Your task to perform on an android device: Go to Amazon Image 0: 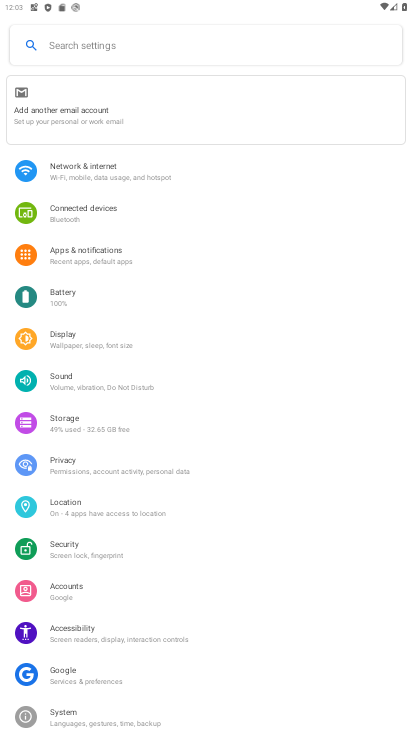
Step 0: press back button
Your task to perform on an android device: Go to Amazon Image 1: 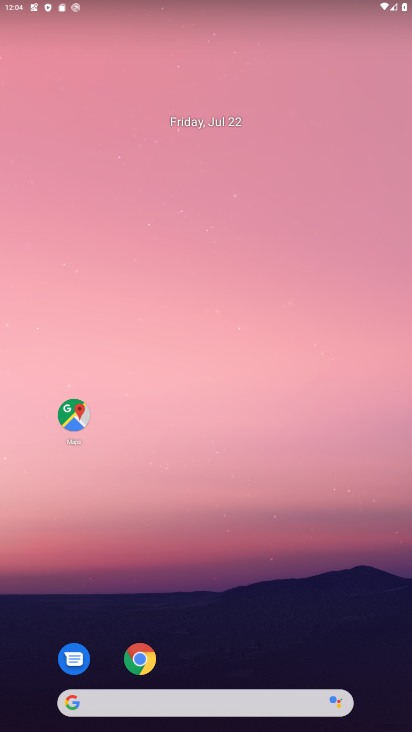
Step 1: click (145, 660)
Your task to perform on an android device: Go to Amazon Image 2: 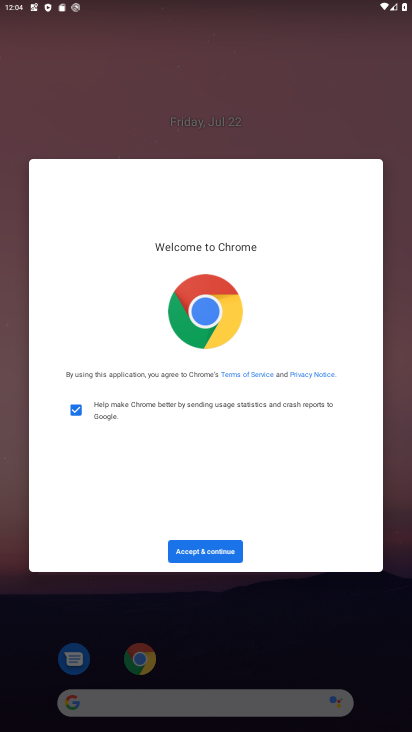
Step 2: click (205, 555)
Your task to perform on an android device: Go to Amazon Image 3: 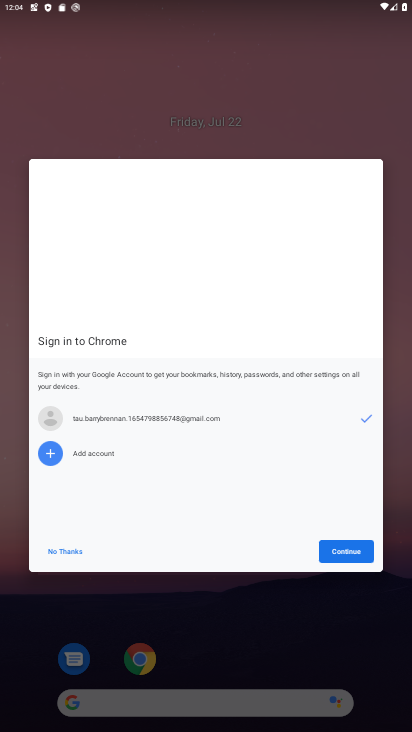
Step 3: click (339, 560)
Your task to perform on an android device: Go to Amazon Image 4: 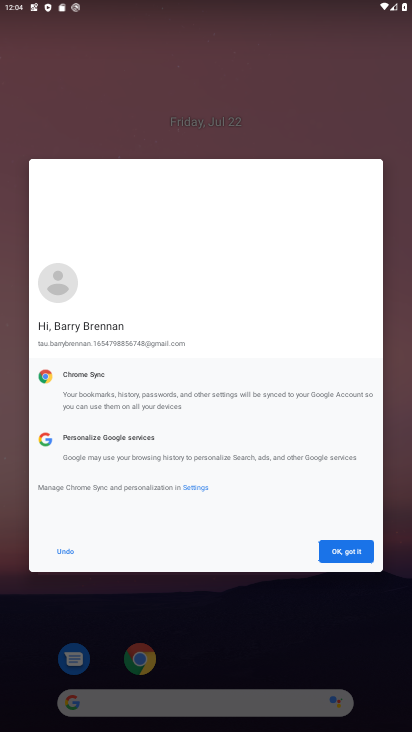
Step 4: click (339, 560)
Your task to perform on an android device: Go to Amazon Image 5: 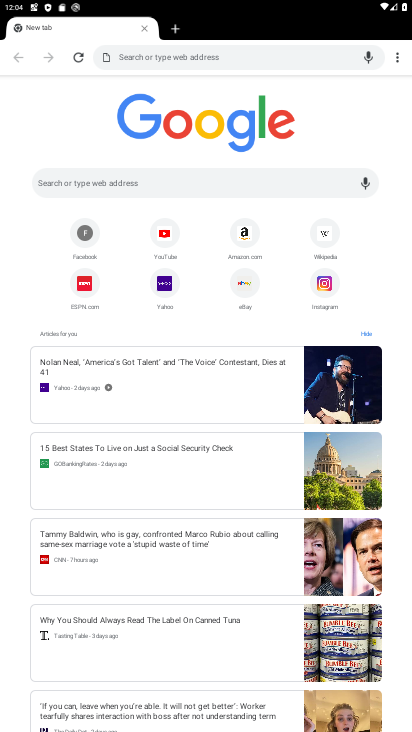
Step 5: click (246, 259)
Your task to perform on an android device: Go to Amazon Image 6: 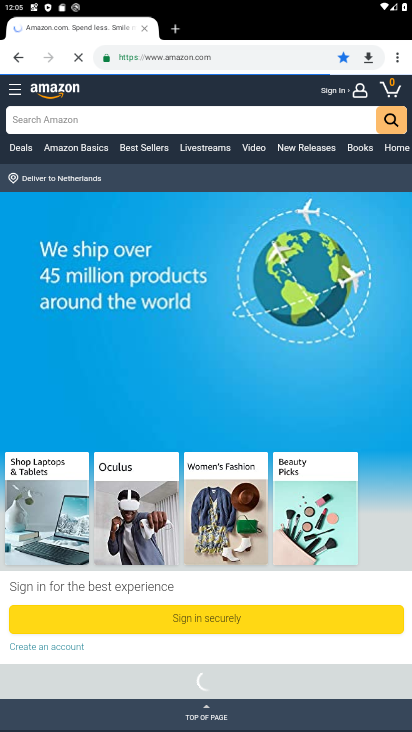
Step 6: task complete